Your task to perform on an android device: open the mobile data screen to see how much data has been used Image 0: 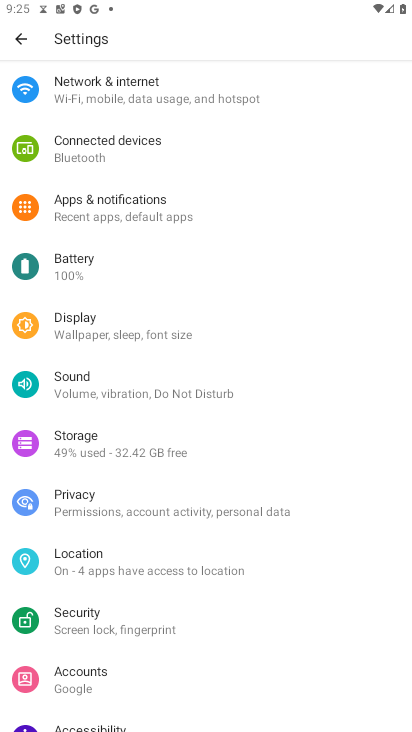
Step 0: press back button
Your task to perform on an android device: open the mobile data screen to see how much data has been used Image 1: 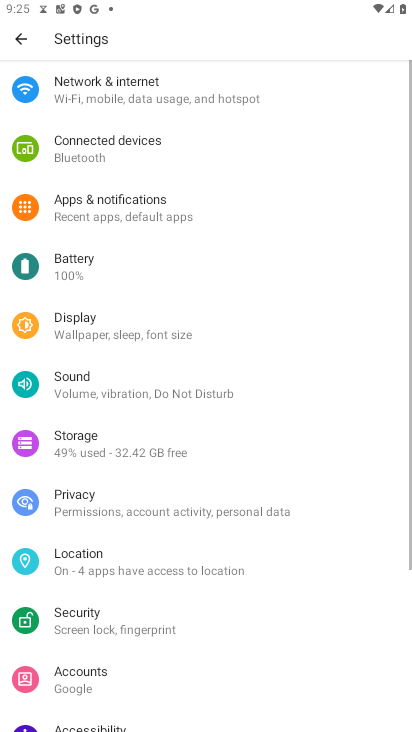
Step 1: press back button
Your task to perform on an android device: open the mobile data screen to see how much data has been used Image 2: 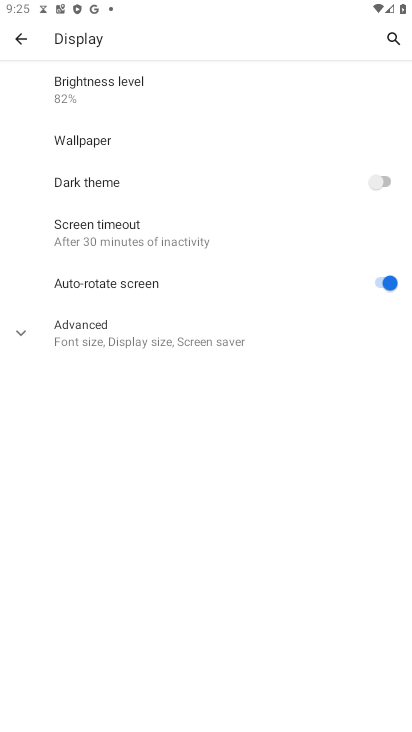
Step 2: press back button
Your task to perform on an android device: open the mobile data screen to see how much data has been used Image 3: 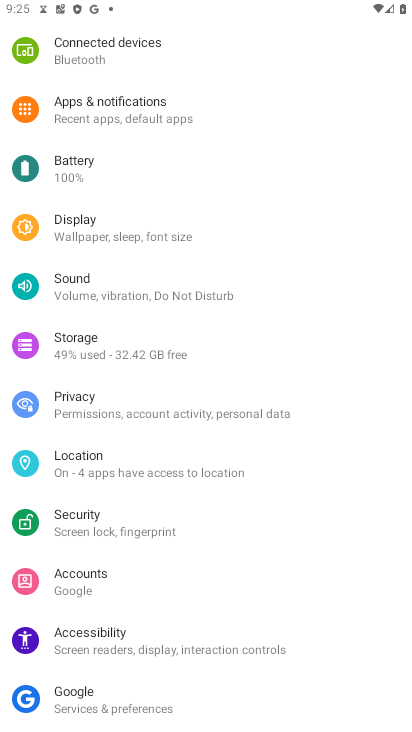
Step 3: press back button
Your task to perform on an android device: open the mobile data screen to see how much data has been used Image 4: 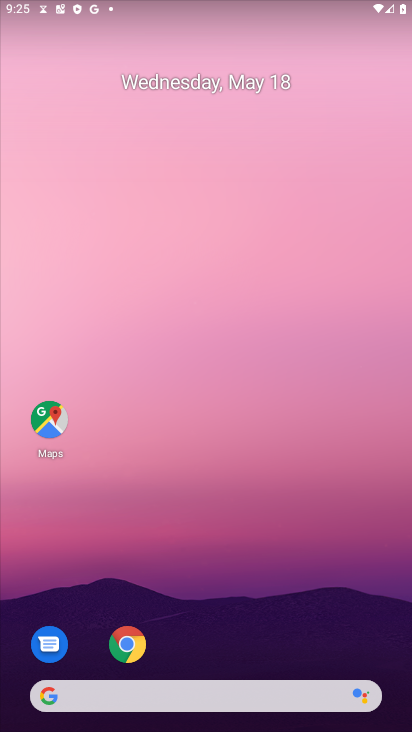
Step 4: drag from (254, 609) to (169, 125)
Your task to perform on an android device: open the mobile data screen to see how much data has been used Image 5: 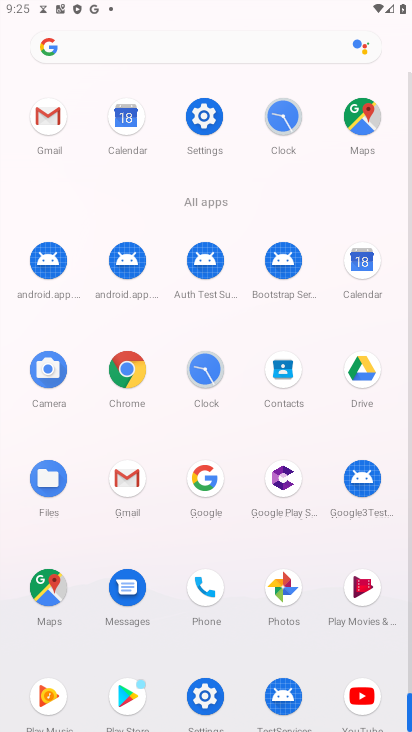
Step 5: click (202, 116)
Your task to perform on an android device: open the mobile data screen to see how much data has been used Image 6: 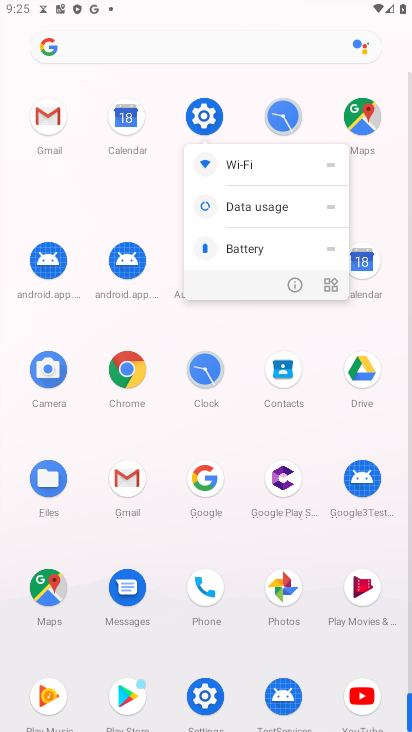
Step 6: click (251, 202)
Your task to perform on an android device: open the mobile data screen to see how much data has been used Image 7: 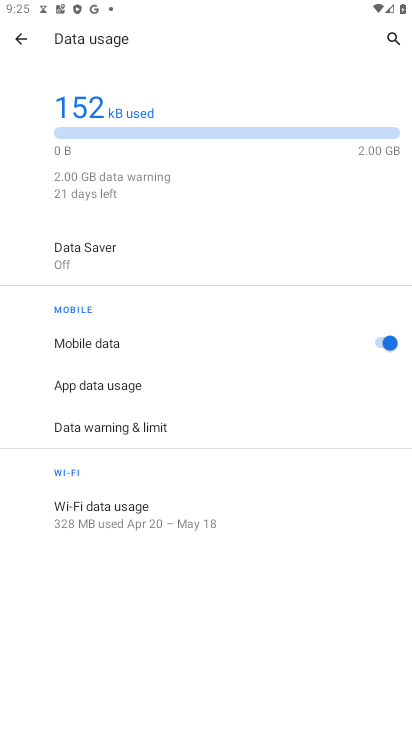
Step 7: task complete